Your task to perform on an android device: toggle javascript in the chrome app Image 0: 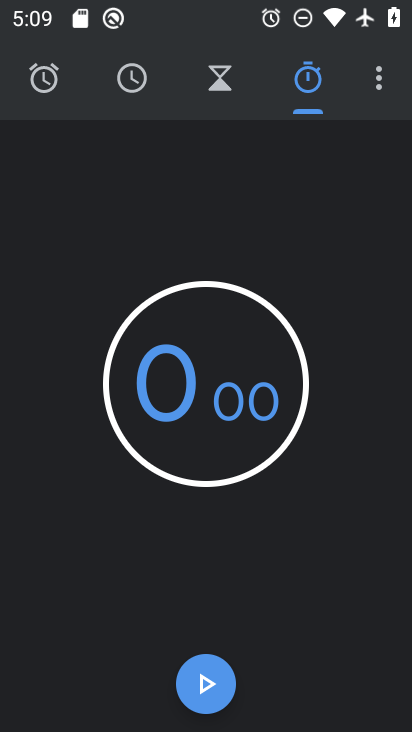
Step 0: press home button
Your task to perform on an android device: toggle javascript in the chrome app Image 1: 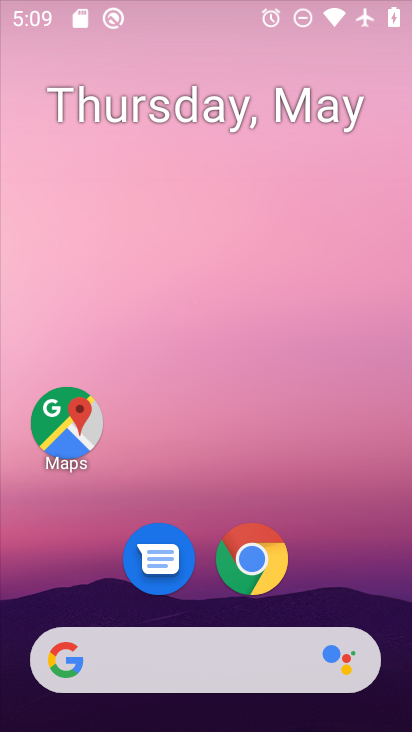
Step 1: drag from (361, 551) to (237, 78)
Your task to perform on an android device: toggle javascript in the chrome app Image 2: 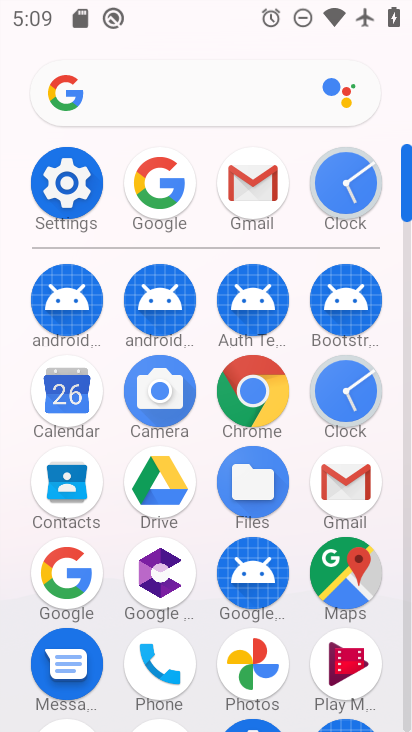
Step 2: click (251, 368)
Your task to perform on an android device: toggle javascript in the chrome app Image 3: 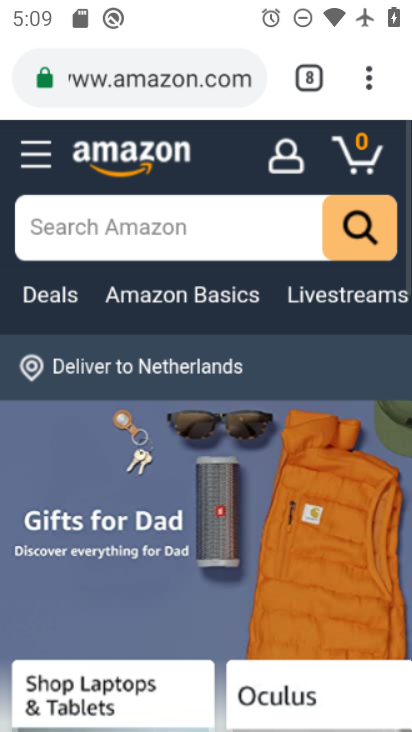
Step 3: click (362, 76)
Your task to perform on an android device: toggle javascript in the chrome app Image 4: 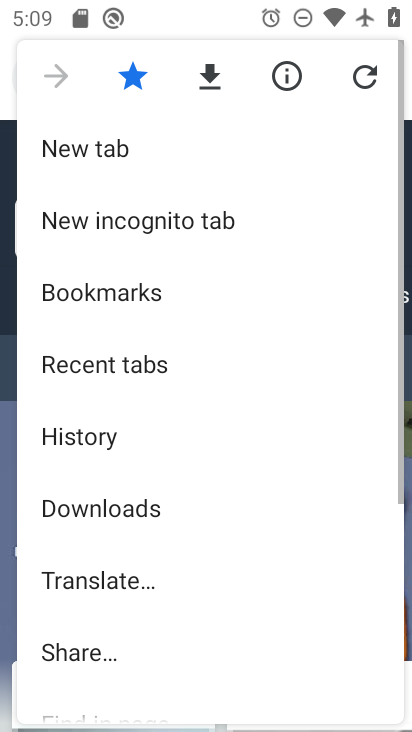
Step 4: drag from (254, 622) to (193, 37)
Your task to perform on an android device: toggle javascript in the chrome app Image 5: 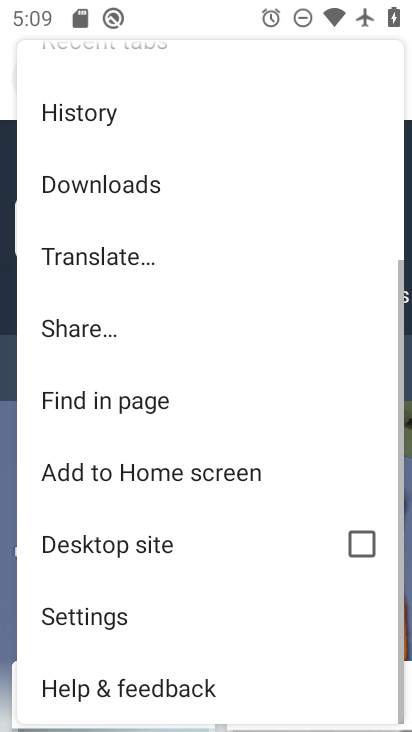
Step 5: click (181, 606)
Your task to perform on an android device: toggle javascript in the chrome app Image 6: 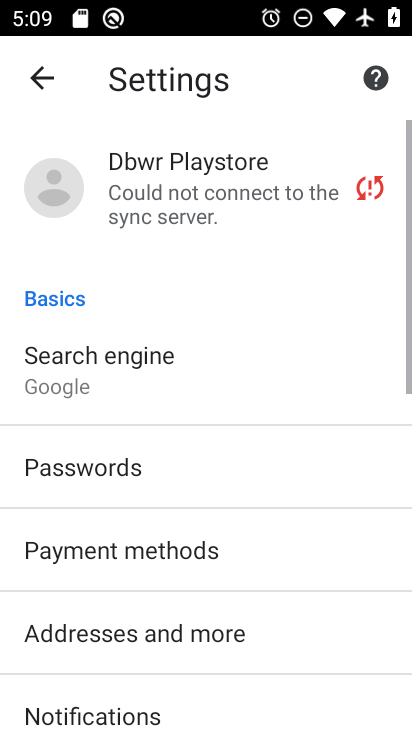
Step 6: drag from (259, 618) to (168, 93)
Your task to perform on an android device: toggle javascript in the chrome app Image 7: 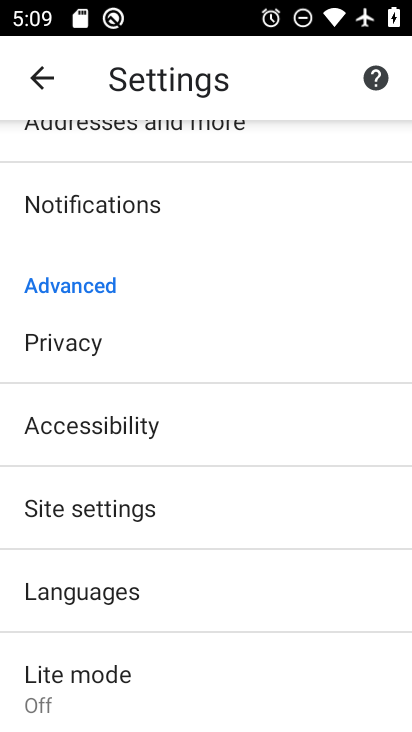
Step 7: click (178, 512)
Your task to perform on an android device: toggle javascript in the chrome app Image 8: 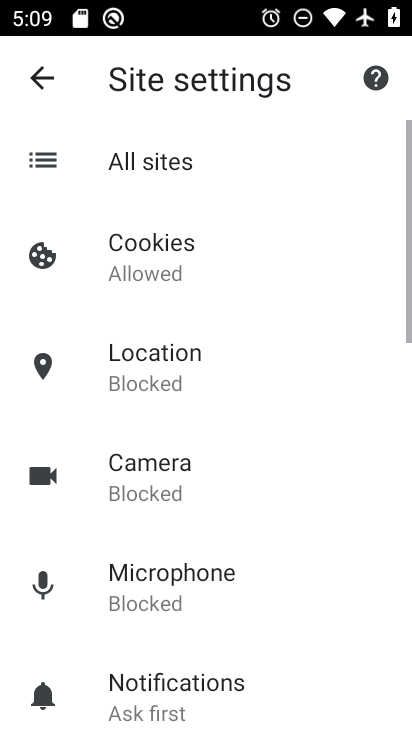
Step 8: drag from (272, 630) to (172, 88)
Your task to perform on an android device: toggle javascript in the chrome app Image 9: 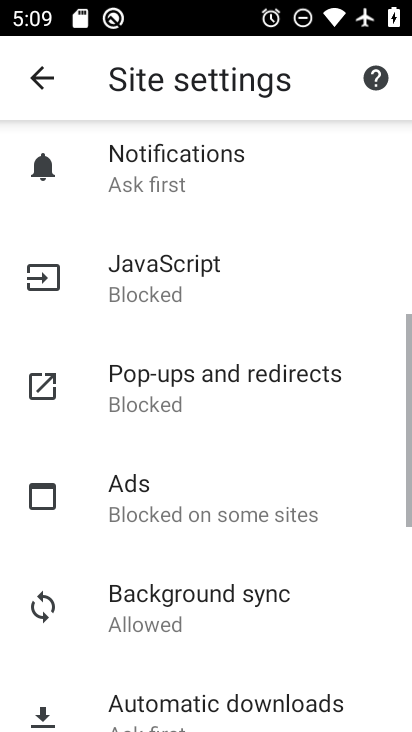
Step 9: click (206, 283)
Your task to perform on an android device: toggle javascript in the chrome app Image 10: 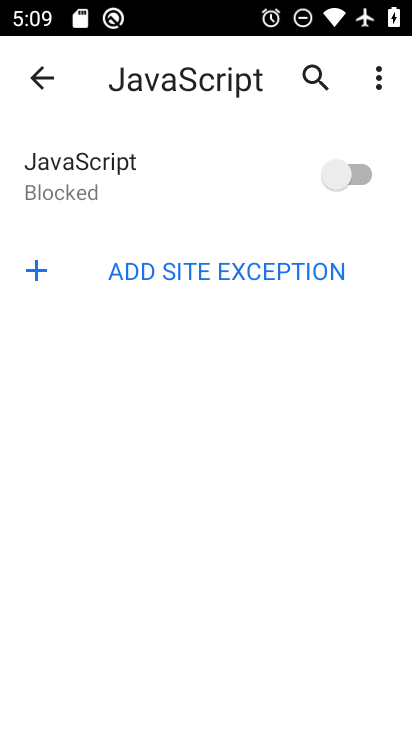
Step 10: click (345, 175)
Your task to perform on an android device: toggle javascript in the chrome app Image 11: 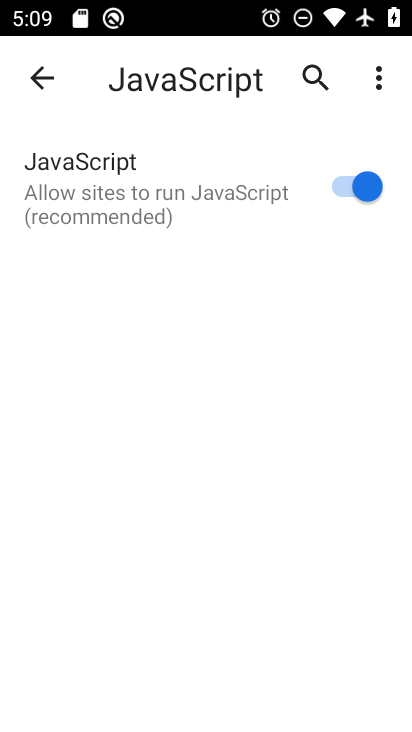
Step 11: task complete